Your task to perform on an android device: turn on the 12-hour format for clock Image 0: 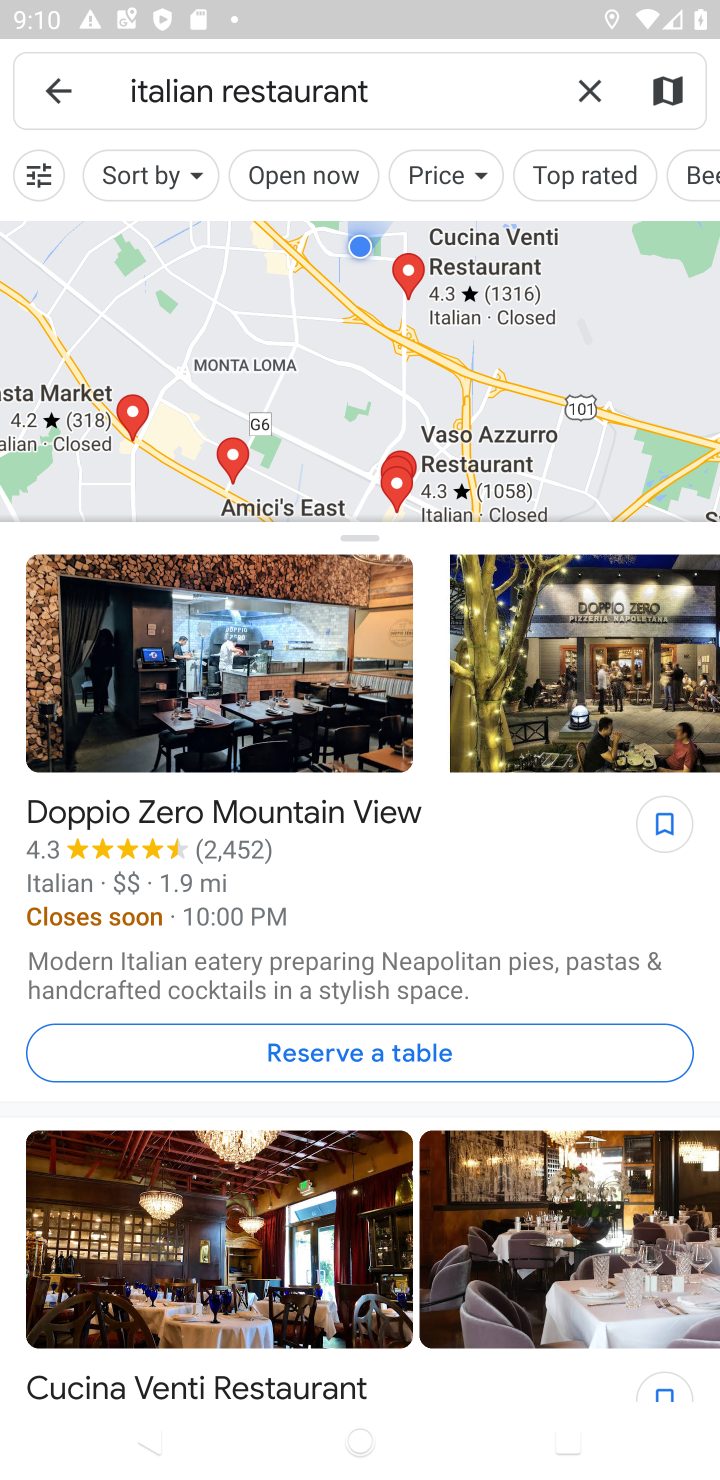
Step 0: press home button
Your task to perform on an android device: turn on the 12-hour format for clock Image 1: 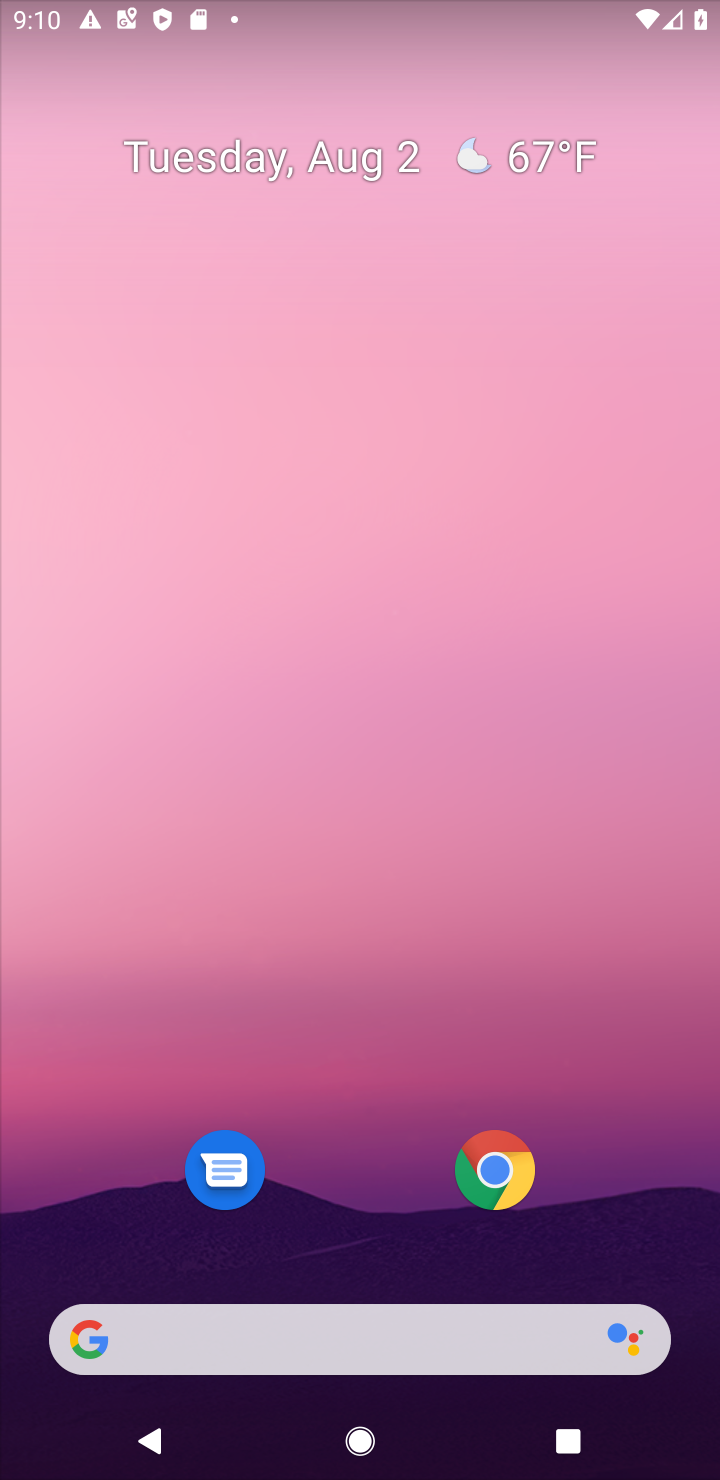
Step 1: drag from (395, 37) to (16, 558)
Your task to perform on an android device: turn on the 12-hour format for clock Image 2: 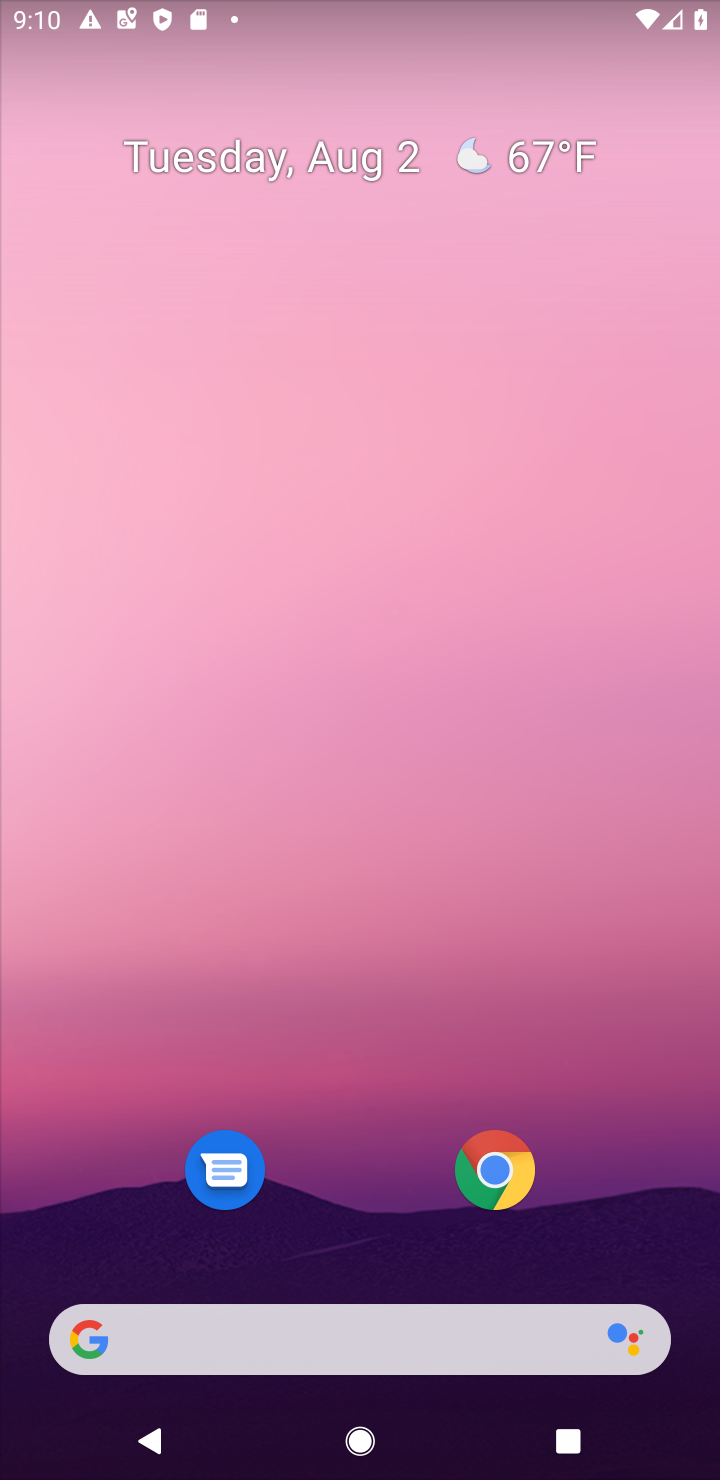
Step 2: drag from (377, 304) to (377, 23)
Your task to perform on an android device: turn on the 12-hour format for clock Image 3: 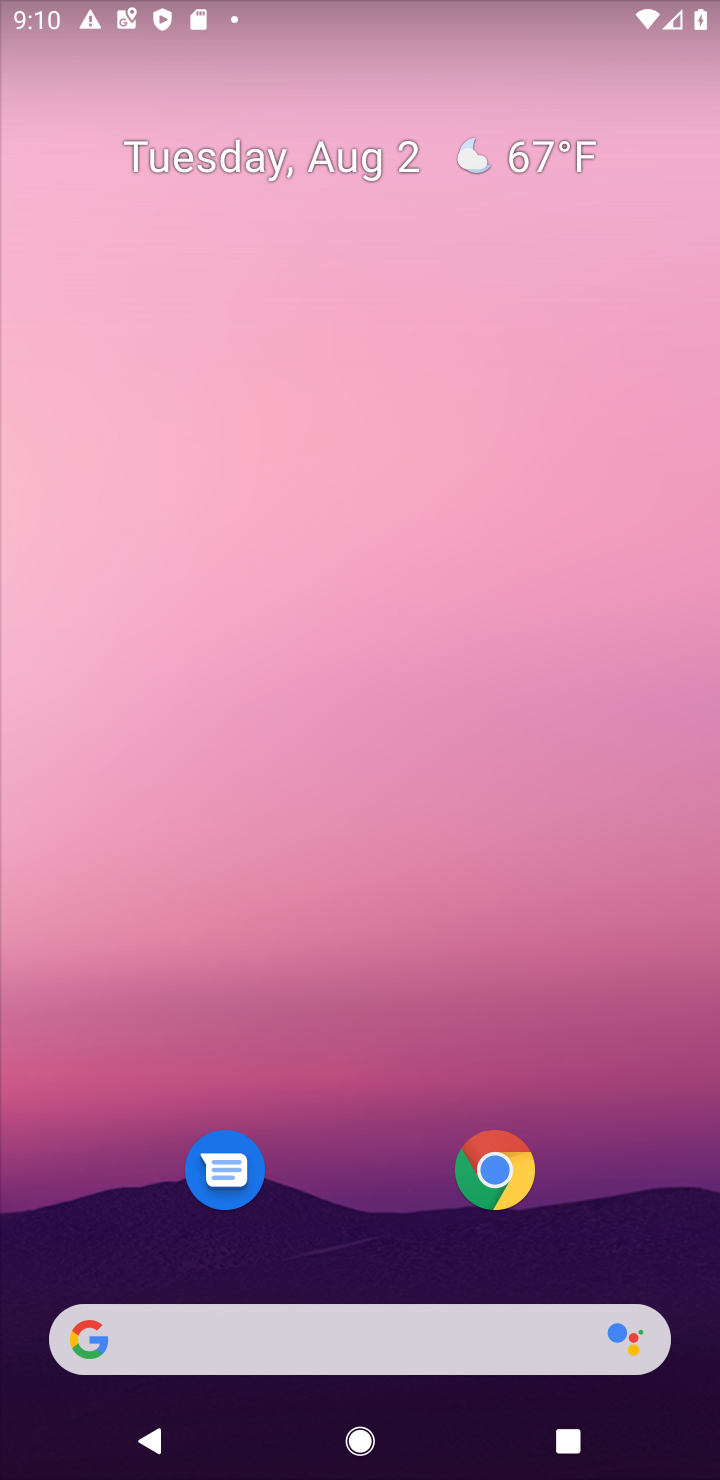
Step 3: drag from (340, 1216) to (334, 360)
Your task to perform on an android device: turn on the 12-hour format for clock Image 4: 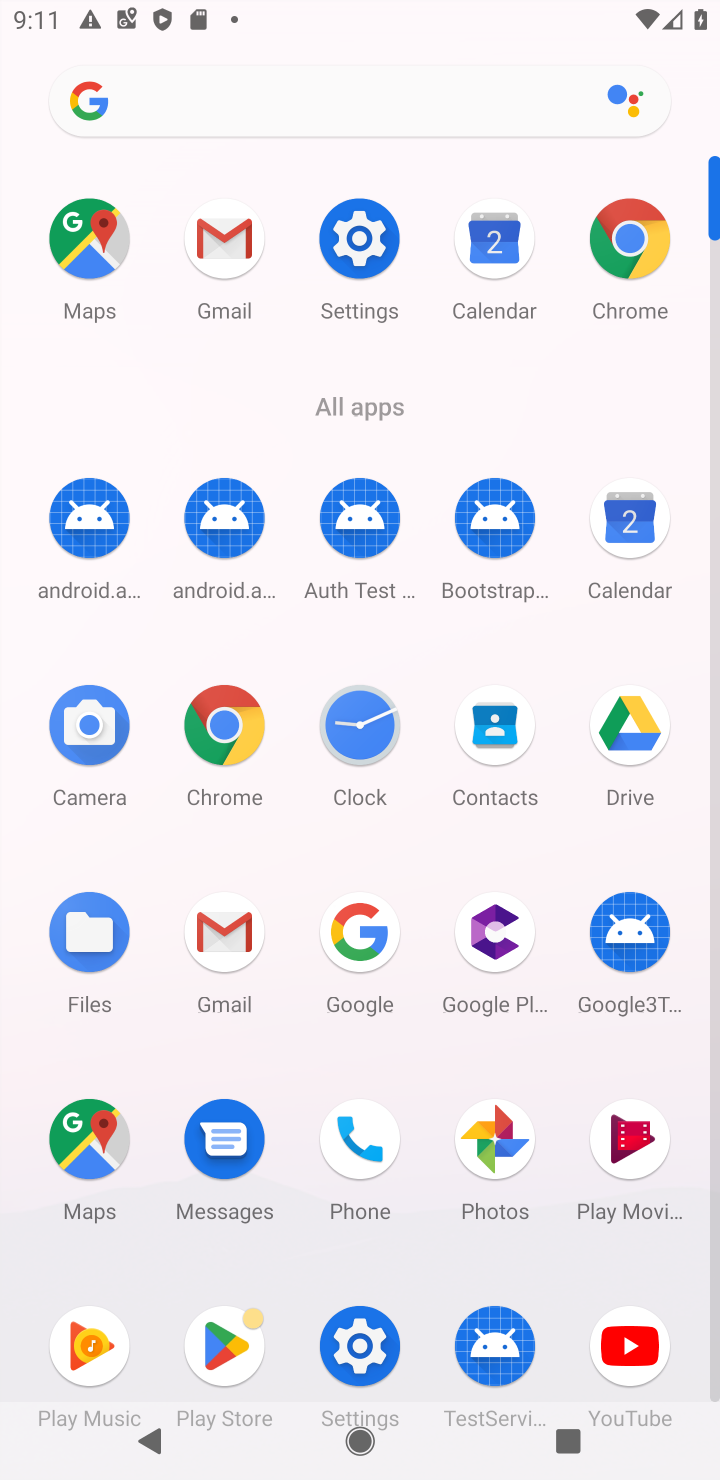
Step 4: click (355, 238)
Your task to perform on an android device: turn on the 12-hour format for clock Image 5: 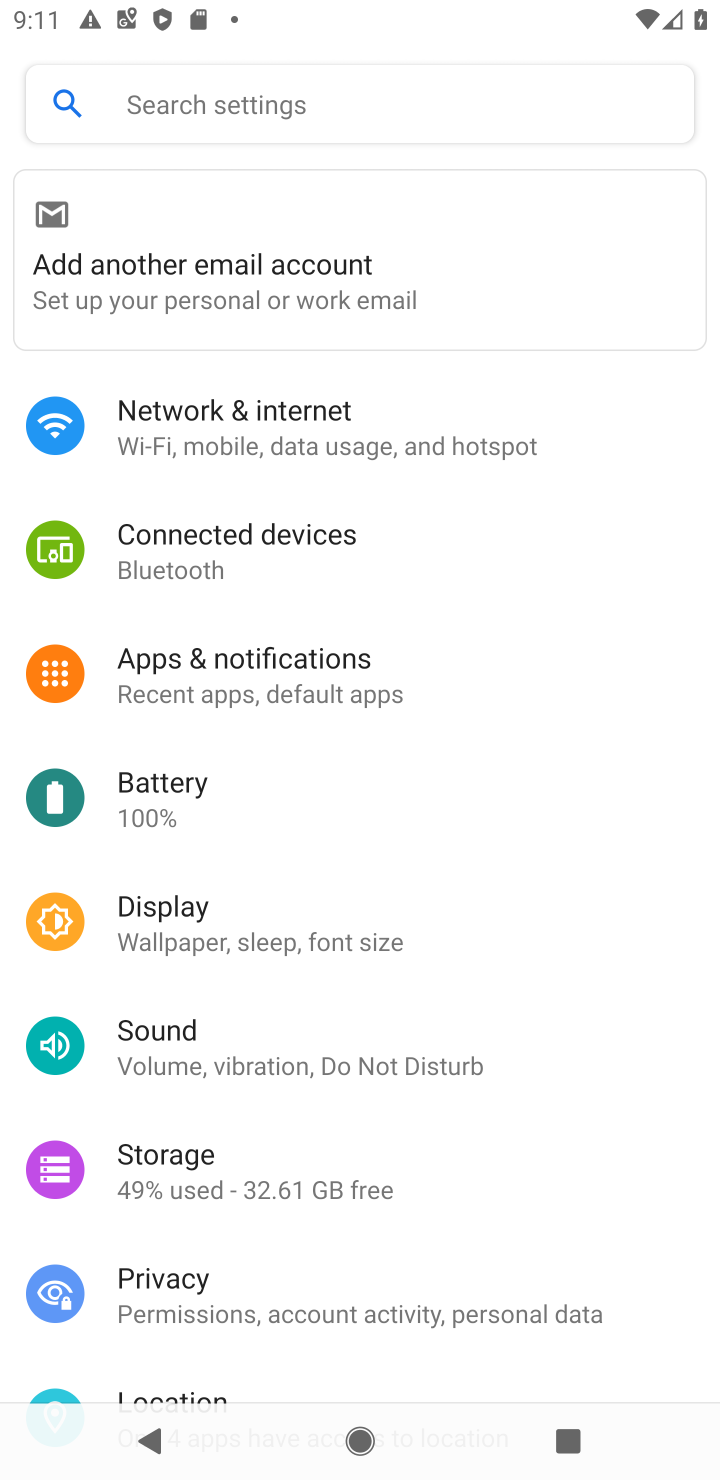
Step 5: drag from (234, 1008) to (327, 519)
Your task to perform on an android device: turn on the 12-hour format for clock Image 6: 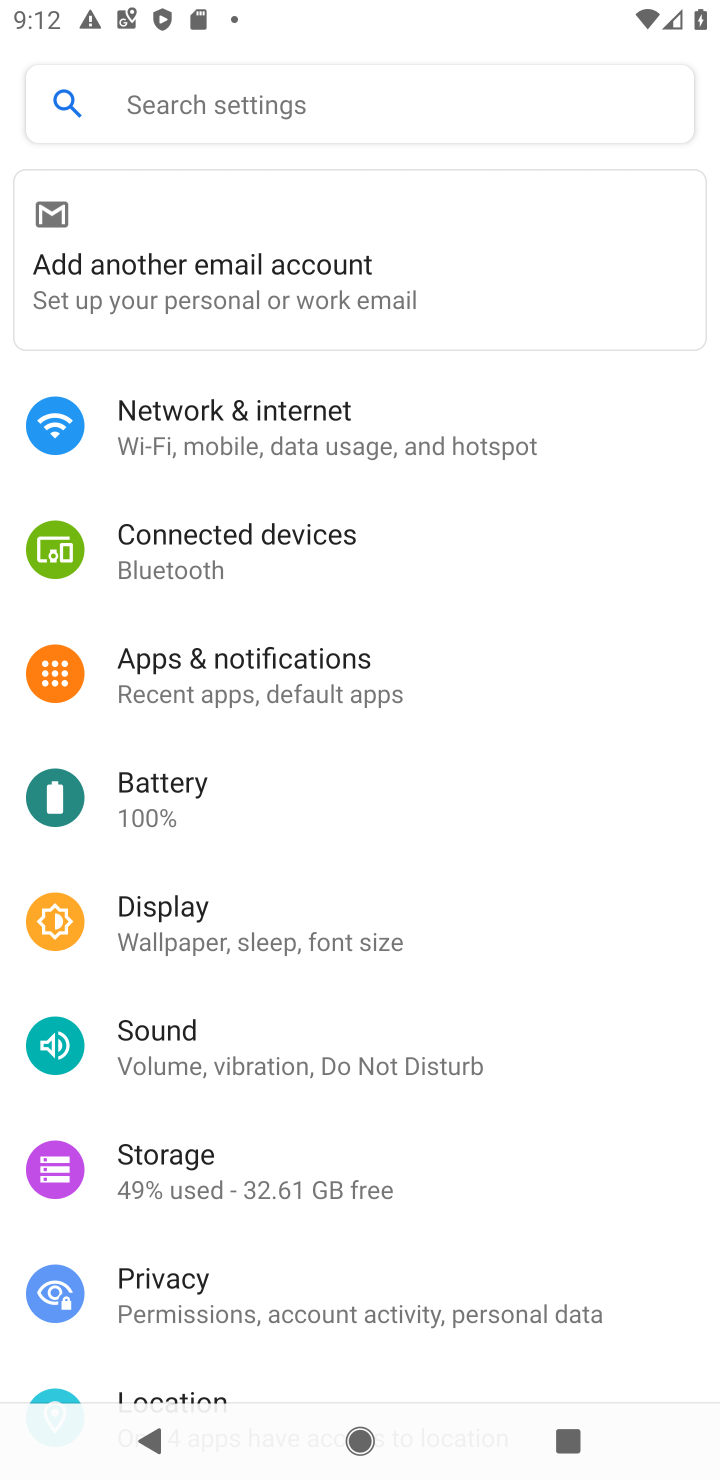
Step 6: press back button
Your task to perform on an android device: turn on the 12-hour format for clock Image 7: 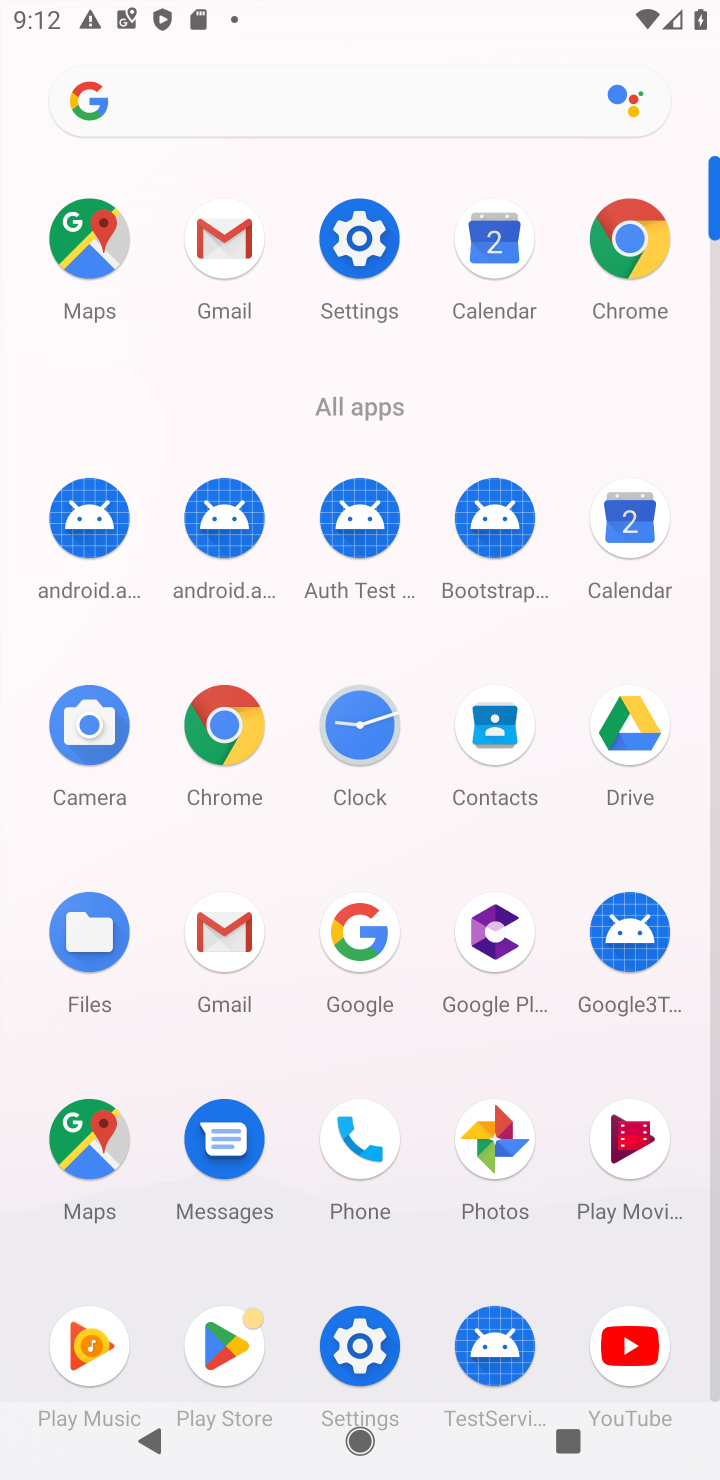
Step 7: click (356, 732)
Your task to perform on an android device: turn on the 12-hour format for clock Image 8: 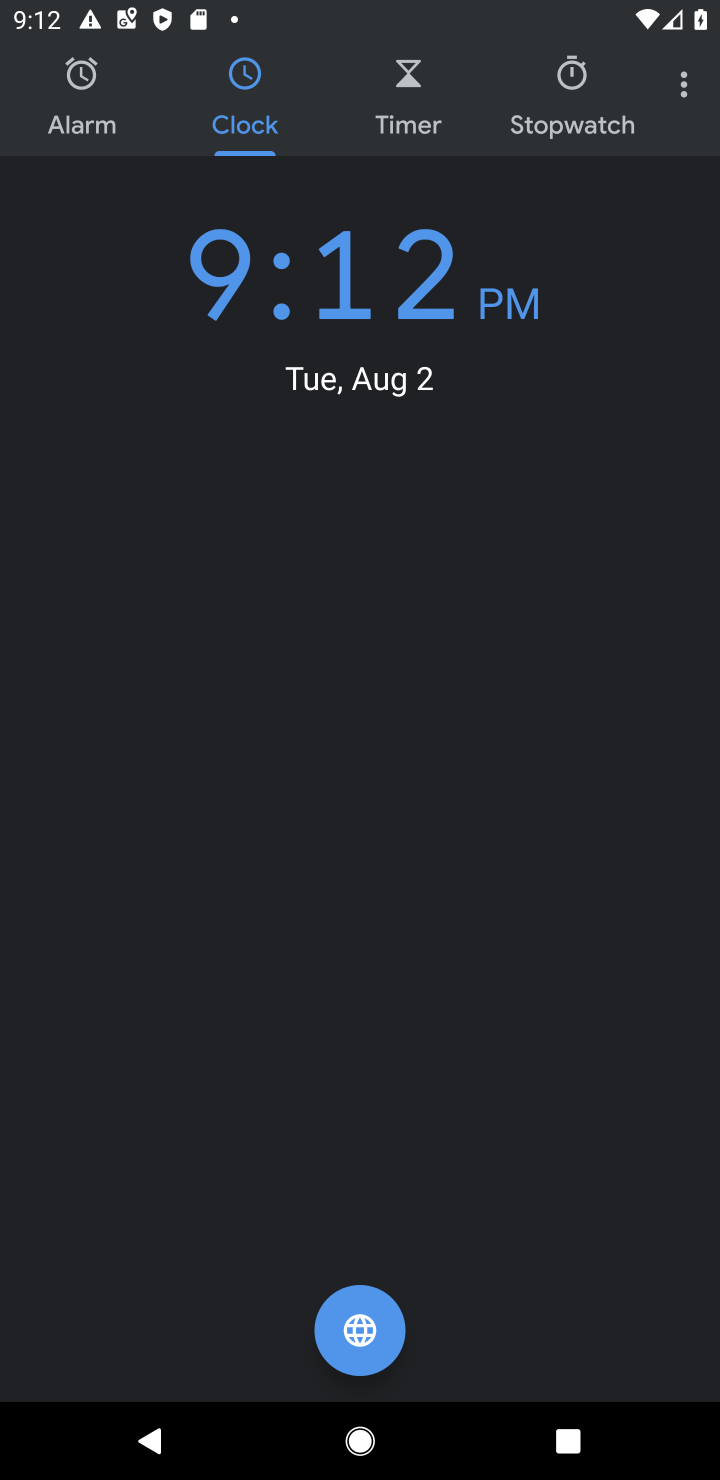
Step 8: click (681, 87)
Your task to perform on an android device: turn on the 12-hour format for clock Image 9: 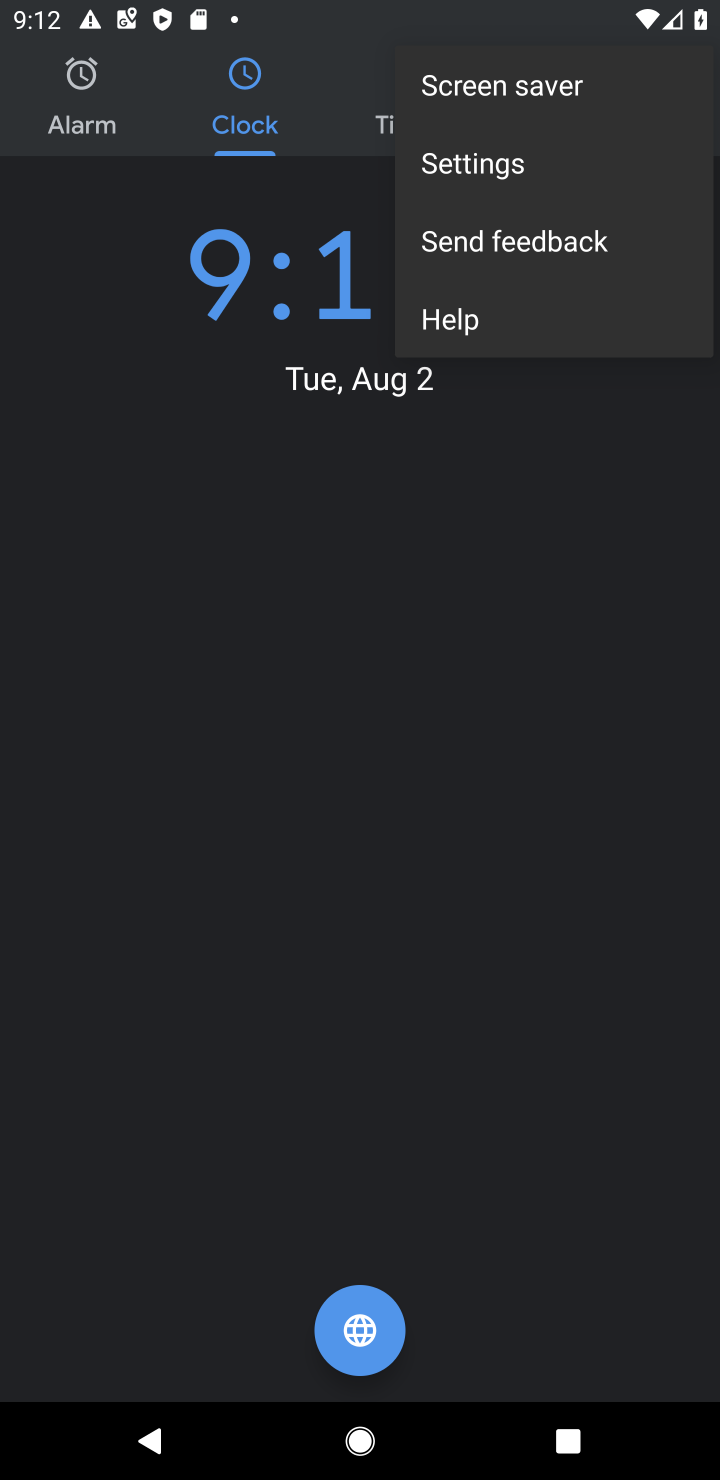
Step 9: click (488, 150)
Your task to perform on an android device: turn on the 12-hour format for clock Image 10: 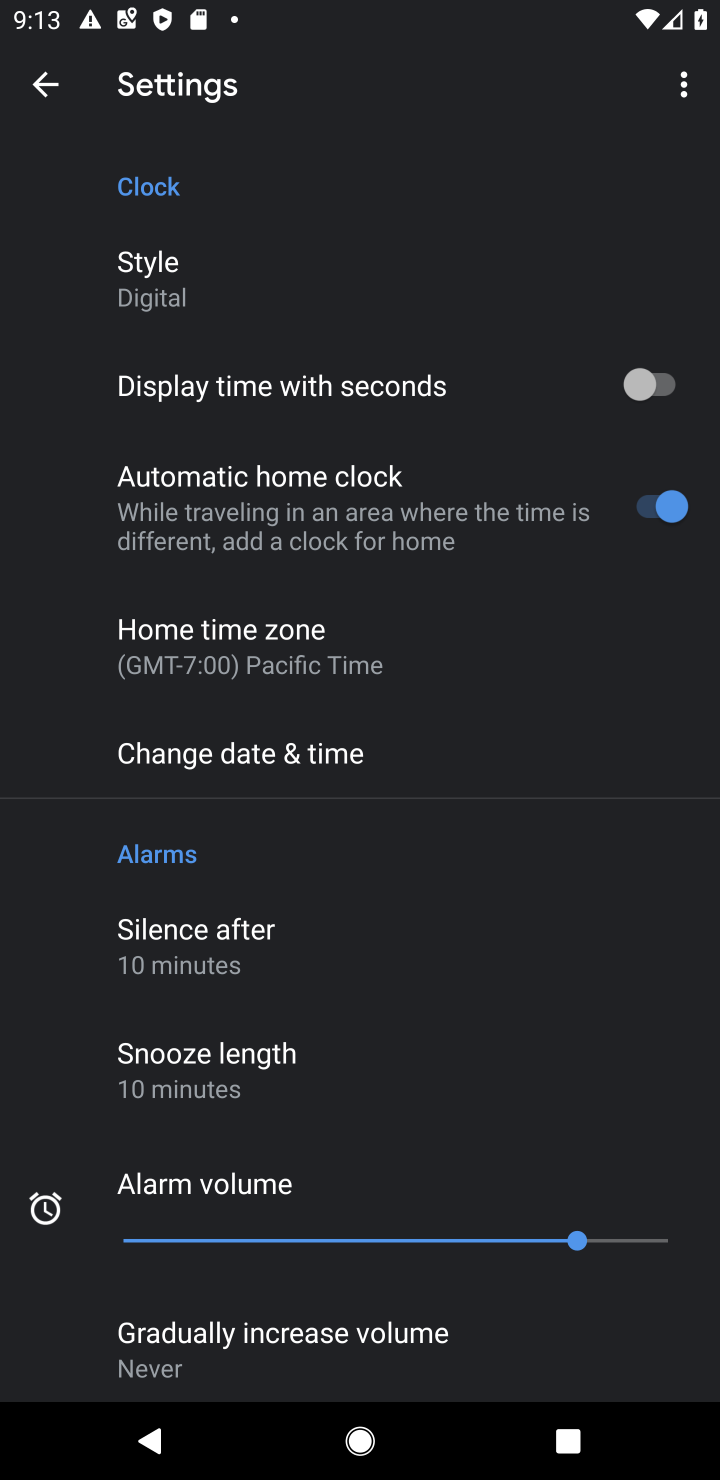
Step 10: drag from (294, 1097) to (294, 790)
Your task to perform on an android device: turn on the 12-hour format for clock Image 11: 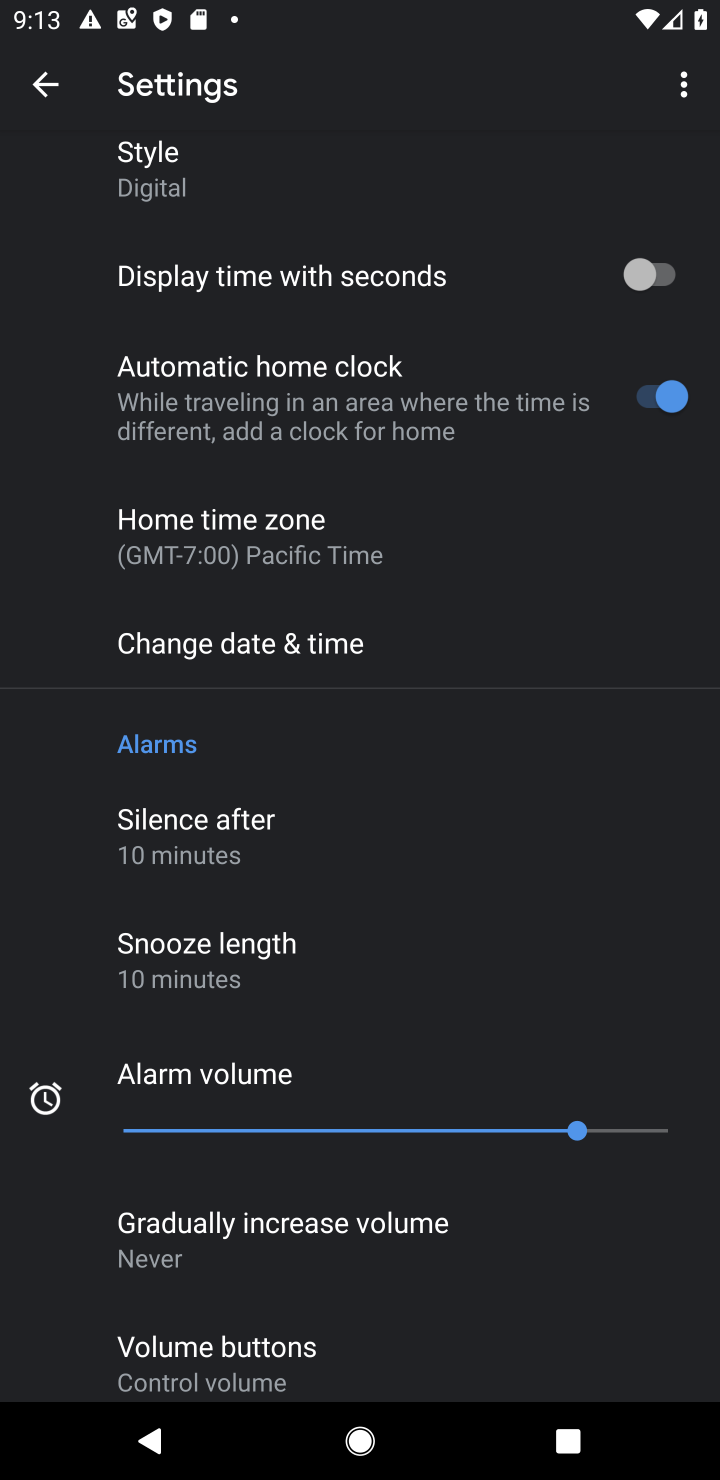
Step 11: click (301, 657)
Your task to perform on an android device: turn on the 12-hour format for clock Image 12: 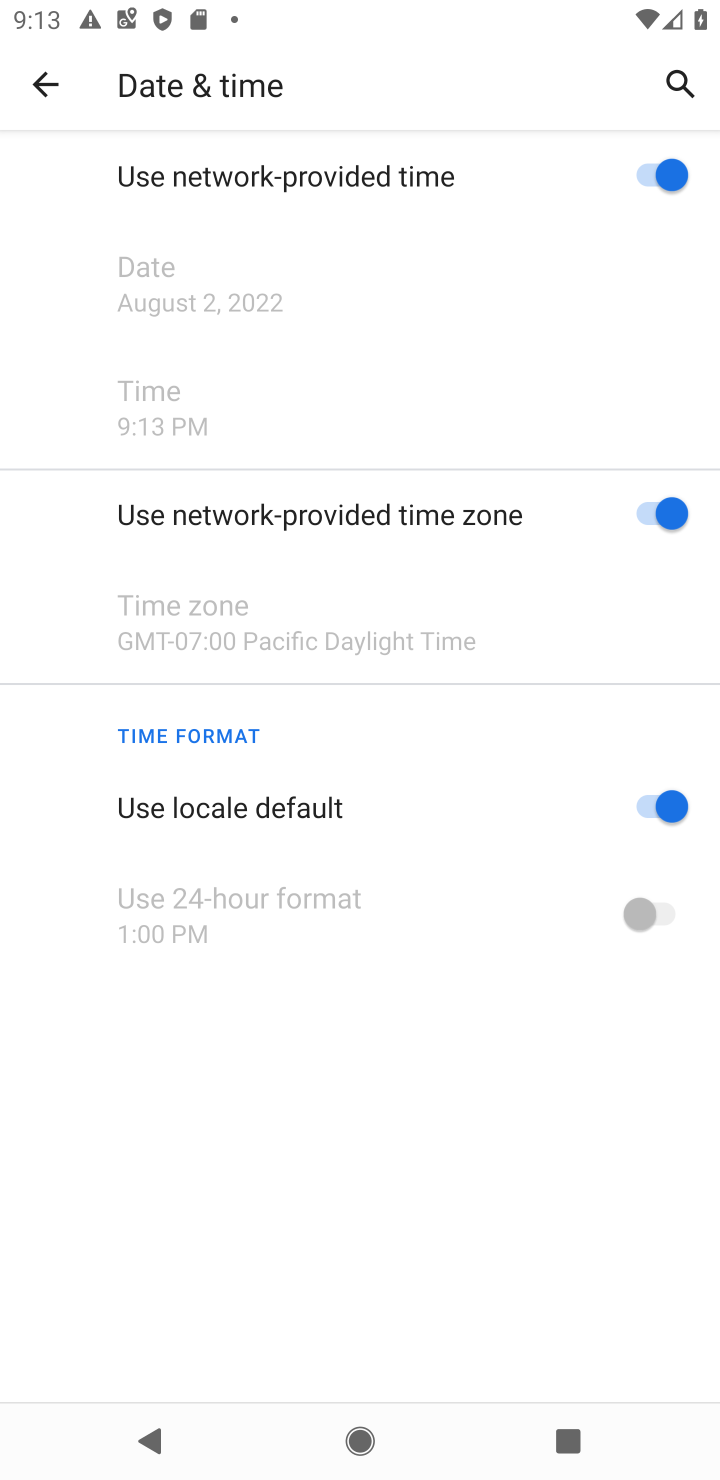
Step 12: task complete